Your task to perform on an android device: Show me popular videos on Youtube Image 0: 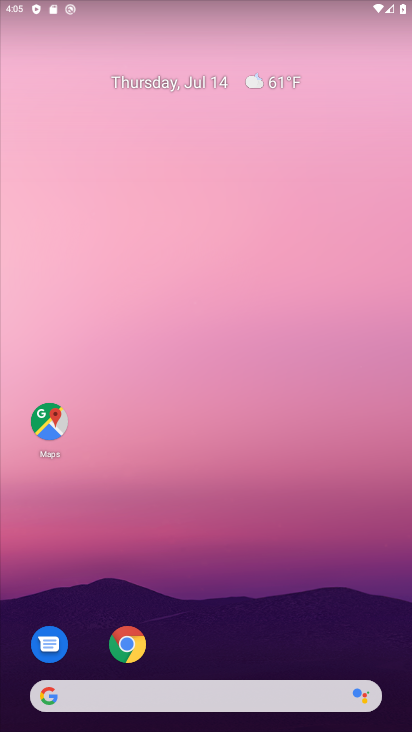
Step 0: drag from (366, 636) to (383, 81)
Your task to perform on an android device: Show me popular videos on Youtube Image 1: 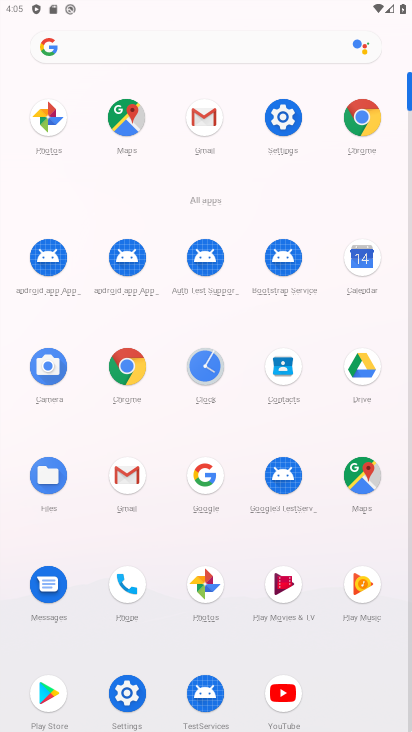
Step 1: click (276, 692)
Your task to perform on an android device: Show me popular videos on Youtube Image 2: 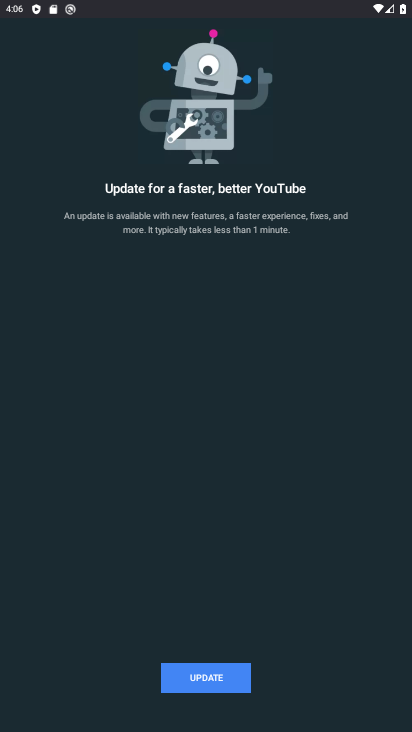
Step 2: click (195, 687)
Your task to perform on an android device: Show me popular videos on Youtube Image 3: 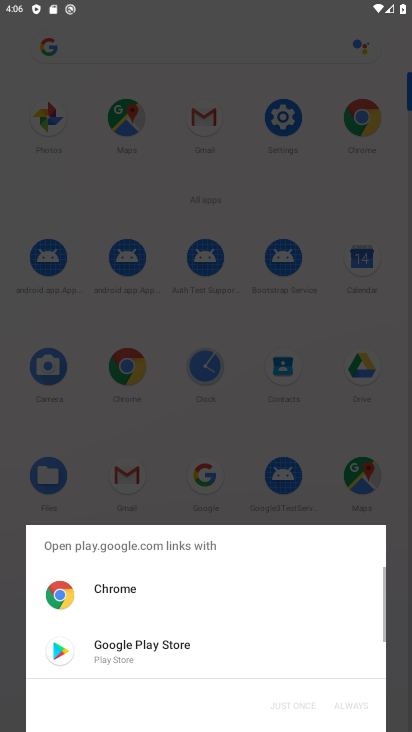
Step 3: click (177, 654)
Your task to perform on an android device: Show me popular videos on Youtube Image 4: 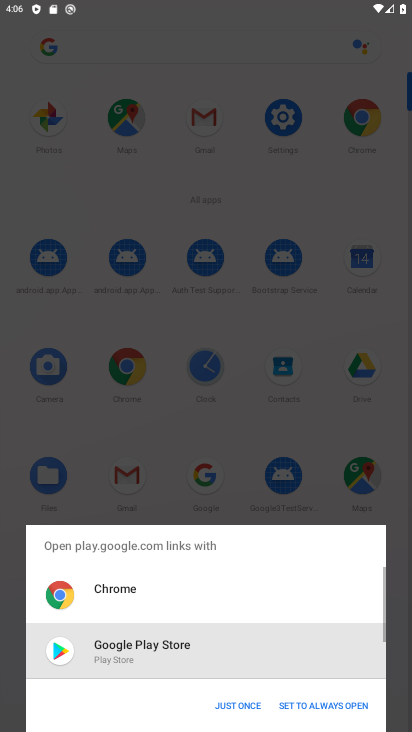
Step 4: click (228, 711)
Your task to perform on an android device: Show me popular videos on Youtube Image 5: 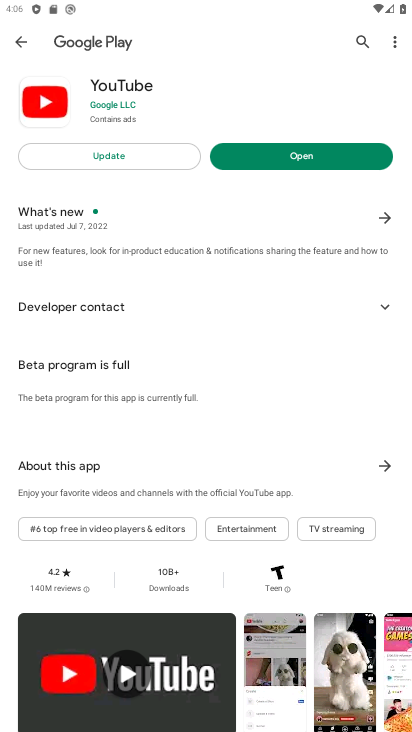
Step 5: click (129, 145)
Your task to perform on an android device: Show me popular videos on Youtube Image 6: 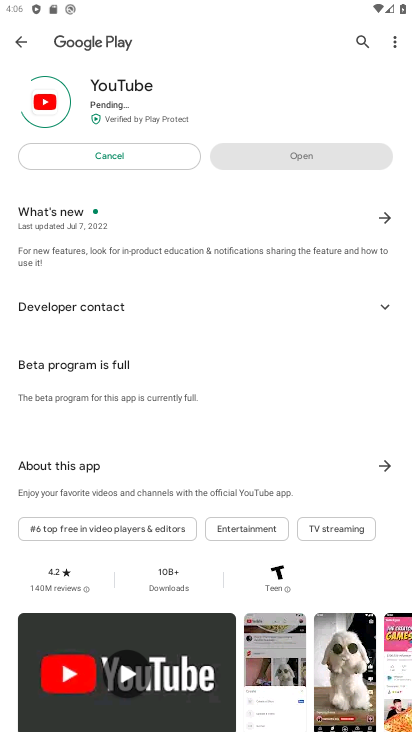
Step 6: drag from (350, 681) to (410, 324)
Your task to perform on an android device: Show me popular videos on Youtube Image 7: 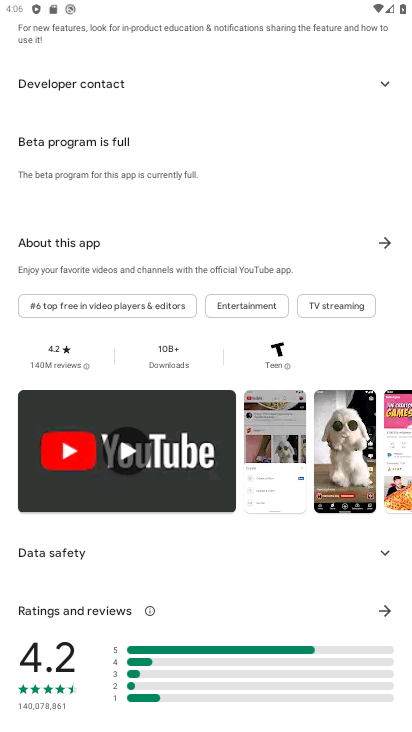
Step 7: drag from (325, 546) to (189, 545)
Your task to perform on an android device: Show me popular videos on Youtube Image 8: 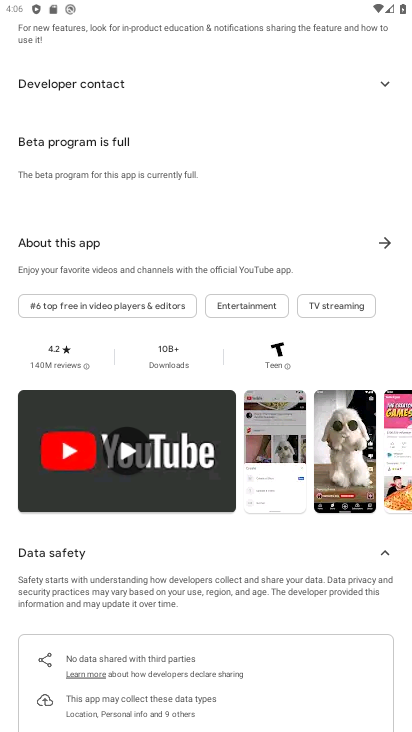
Step 8: drag from (334, 442) to (89, 468)
Your task to perform on an android device: Show me popular videos on Youtube Image 9: 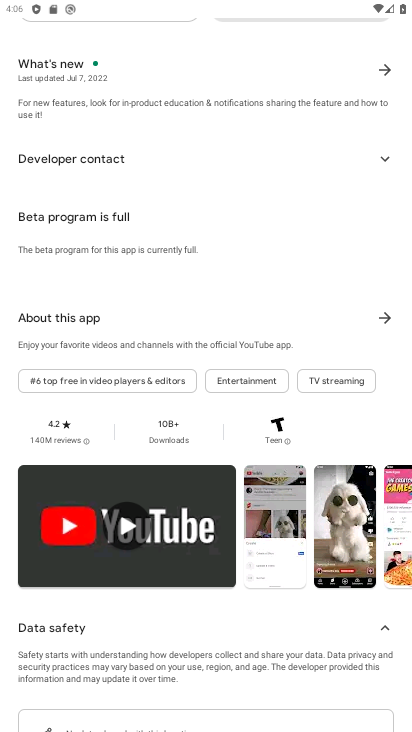
Step 9: drag from (310, 527) to (73, 540)
Your task to perform on an android device: Show me popular videos on Youtube Image 10: 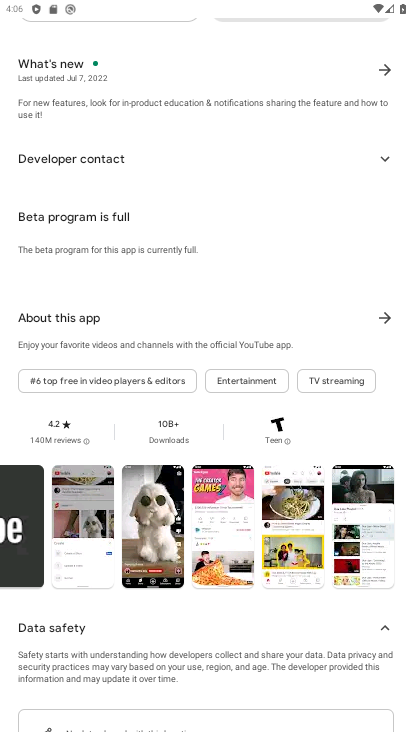
Step 10: click (214, 532)
Your task to perform on an android device: Show me popular videos on Youtube Image 11: 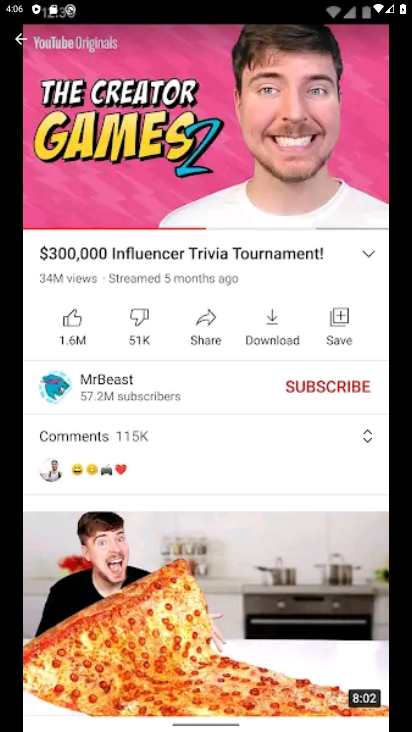
Step 11: drag from (300, 399) to (26, 482)
Your task to perform on an android device: Show me popular videos on Youtube Image 12: 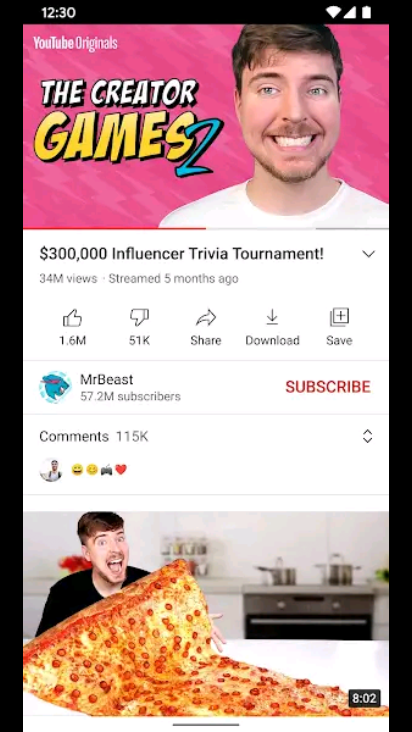
Step 12: drag from (322, 414) to (0, 428)
Your task to perform on an android device: Show me popular videos on Youtube Image 13: 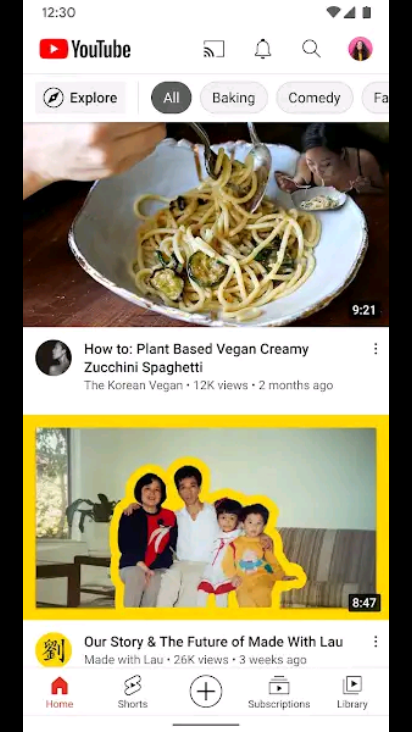
Step 13: drag from (194, 214) to (117, 728)
Your task to perform on an android device: Show me popular videos on Youtube Image 14: 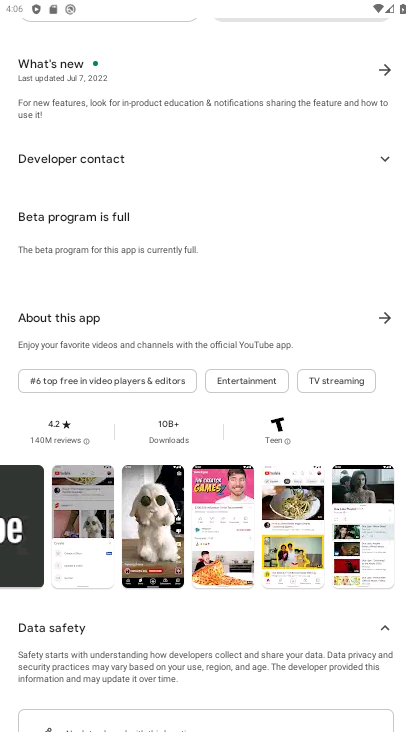
Step 14: drag from (221, 216) to (209, 719)
Your task to perform on an android device: Show me popular videos on Youtube Image 15: 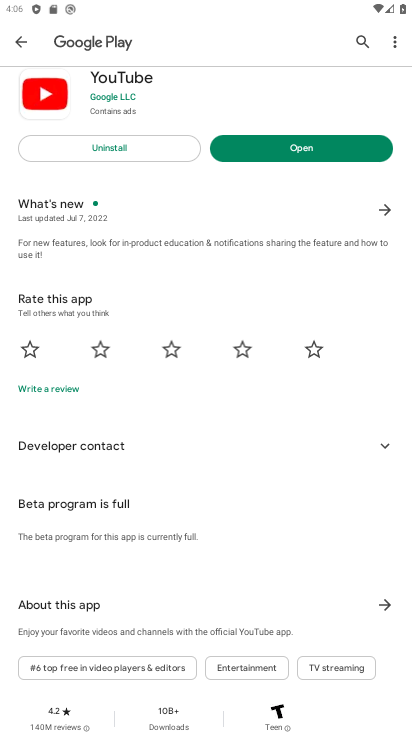
Step 15: click (319, 149)
Your task to perform on an android device: Show me popular videos on Youtube Image 16: 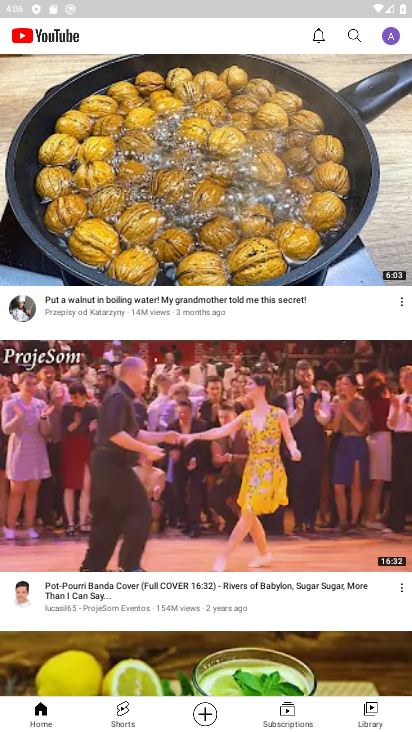
Step 16: click (356, 30)
Your task to perform on an android device: Show me popular videos on Youtube Image 17: 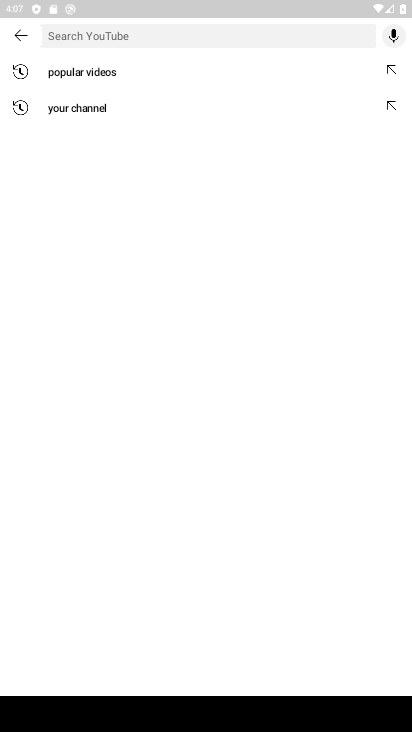
Step 17: type "popular videos on Youtube"
Your task to perform on an android device: Show me popular videos on Youtube Image 18: 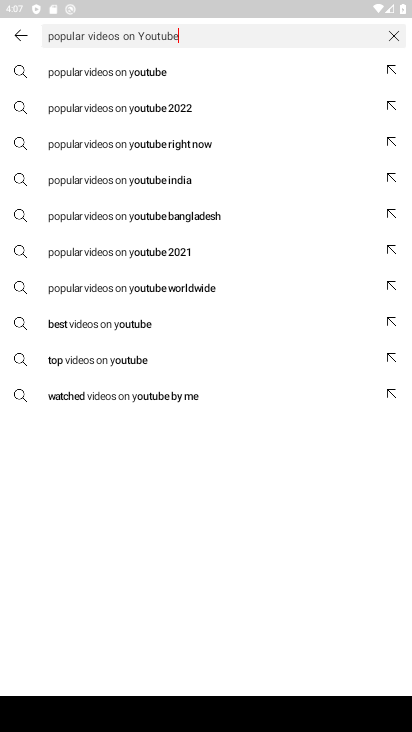
Step 18: type ""
Your task to perform on an android device: Show me popular videos on Youtube Image 19: 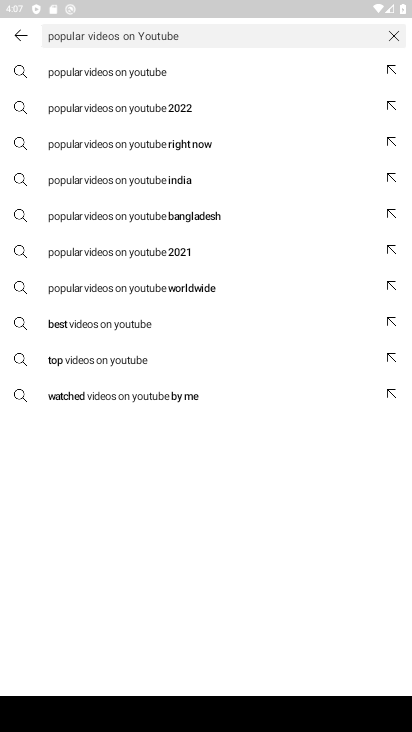
Step 19: click (143, 66)
Your task to perform on an android device: Show me popular videos on Youtube Image 20: 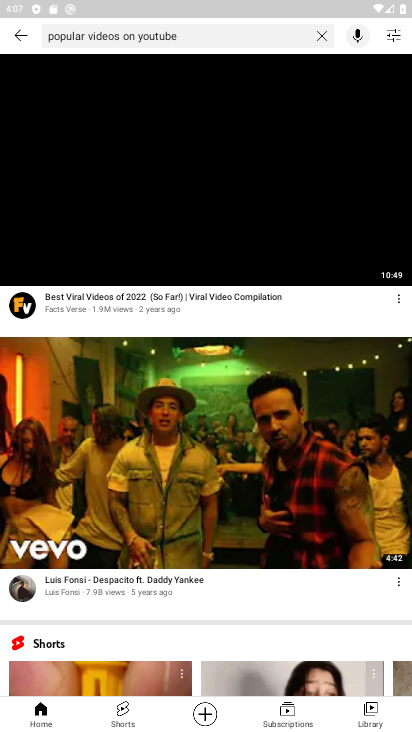
Step 20: task complete